Your task to perform on an android device: What is the recent news? Image 0: 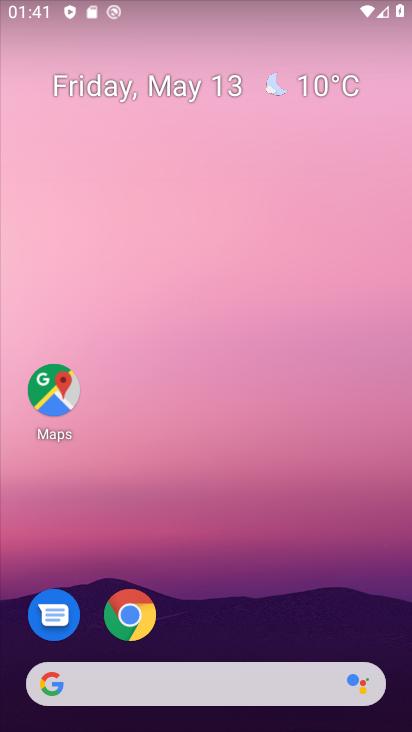
Step 0: click (142, 621)
Your task to perform on an android device: What is the recent news? Image 1: 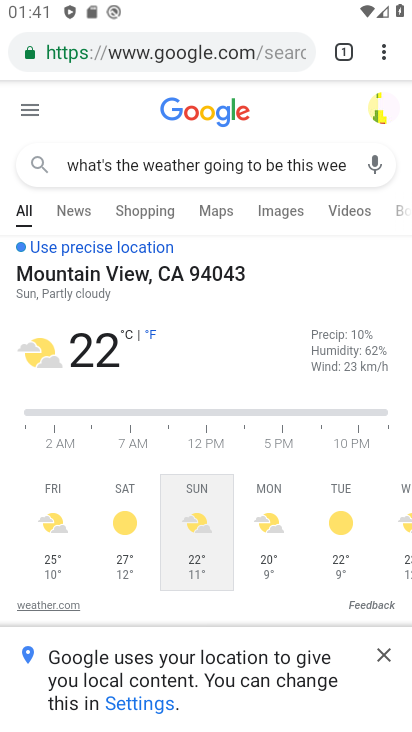
Step 1: click (345, 46)
Your task to perform on an android device: What is the recent news? Image 2: 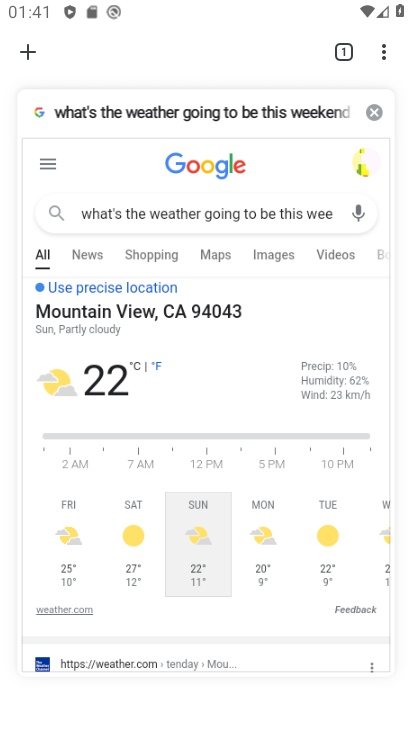
Step 2: click (37, 58)
Your task to perform on an android device: What is the recent news? Image 3: 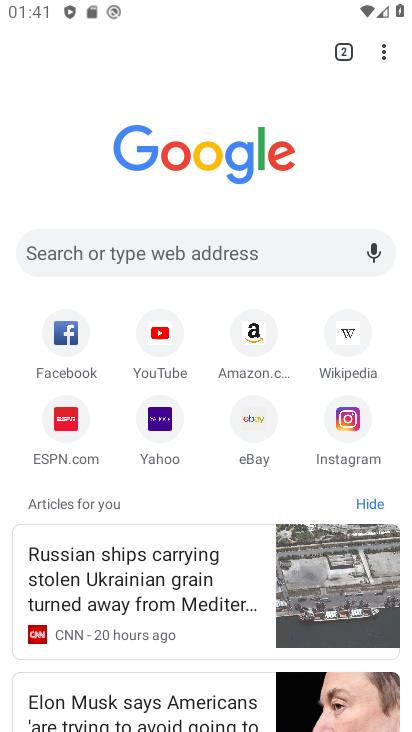
Step 3: click (155, 249)
Your task to perform on an android device: What is the recent news? Image 4: 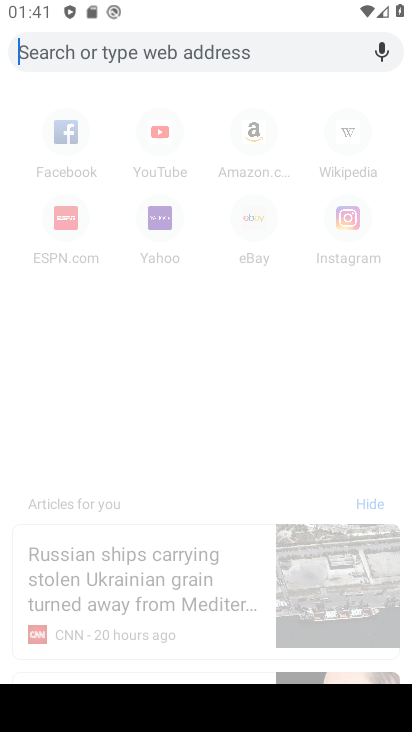
Step 4: type "recent news"
Your task to perform on an android device: What is the recent news? Image 5: 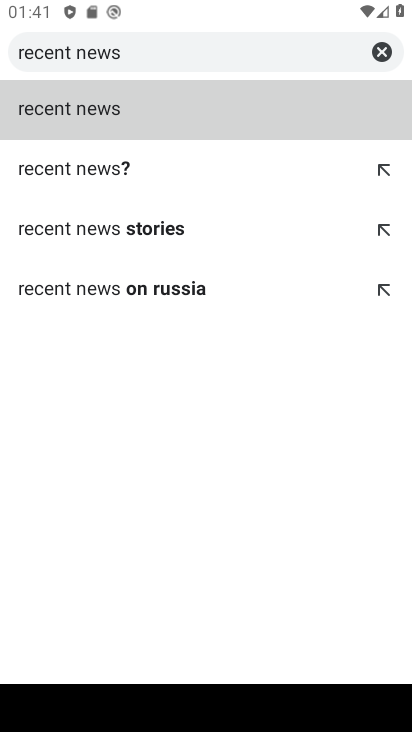
Step 5: click (101, 170)
Your task to perform on an android device: What is the recent news? Image 6: 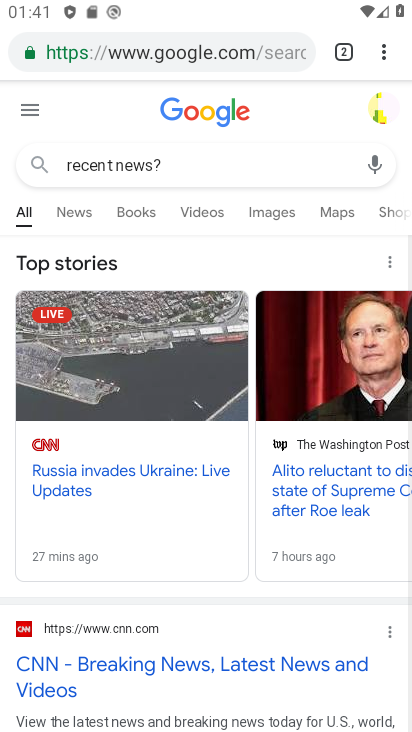
Step 6: click (67, 217)
Your task to perform on an android device: What is the recent news? Image 7: 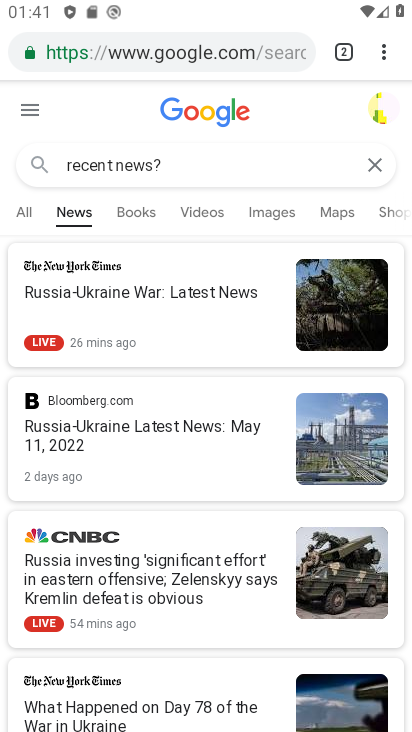
Step 7: task complete